Your task to perform on an android device: Open calendar and show me the fourth week of next month Image 0: 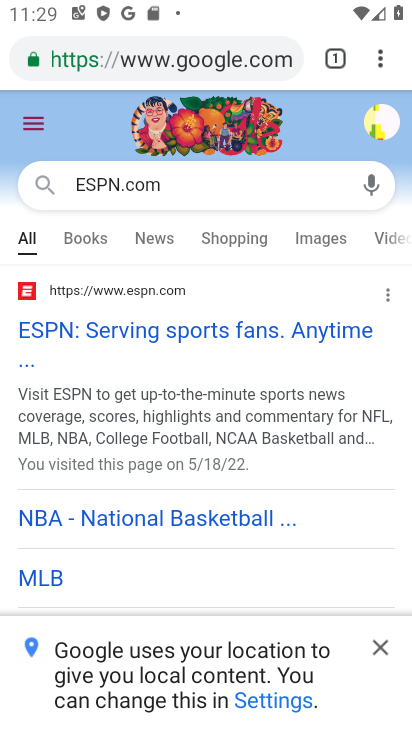
Step 0: press home button
Your task to perform on an android device: Open calendar and show me the fourth week of next month Image 1: 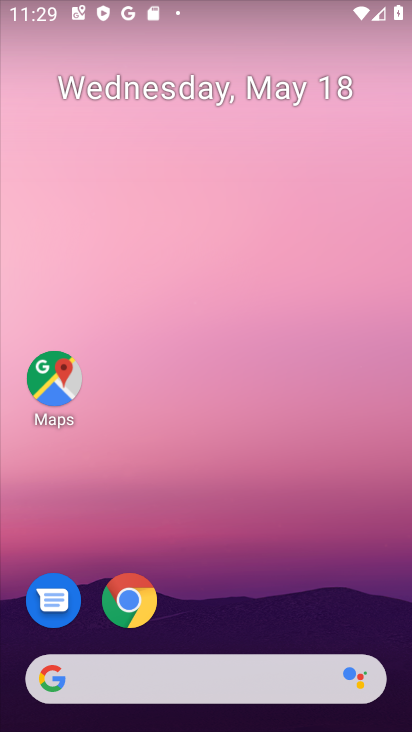
Step 1: drag from (189, 611) to (266, 123)
Your task to perform on an android device: Open calendar and show me the fourth week of next month Image 2: 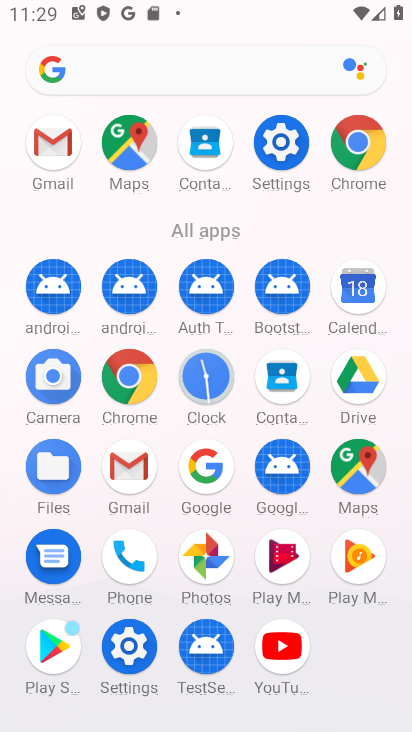
Step 2: click (352, 293)
Your task to perform on an android device: Open calendar and show me the fourth week of next month Image 3: 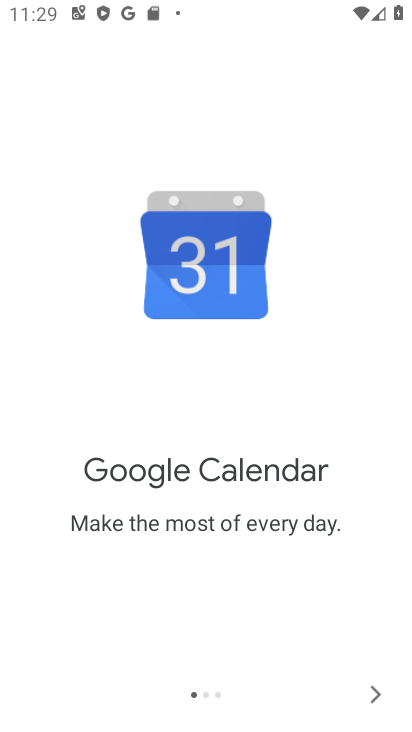
Step 3: click (368, 713)
Your task to perform on an android device: Open calendar and show me the fourth week of next month Image 4: 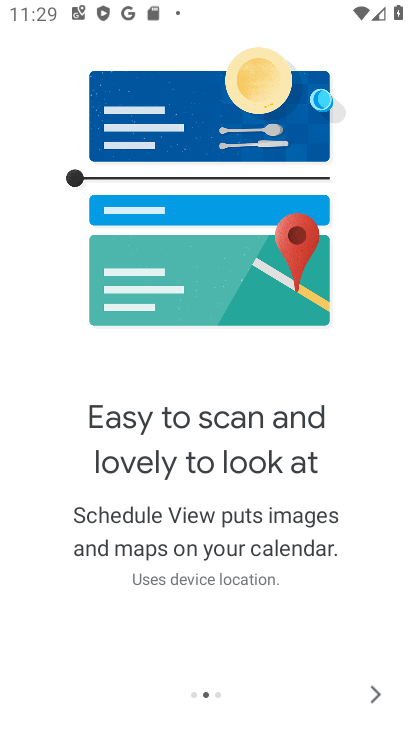
Step 4: click (373, 694)
Your task to perform on an android device: Open calendar and show me the fourth week of next month Image 5: 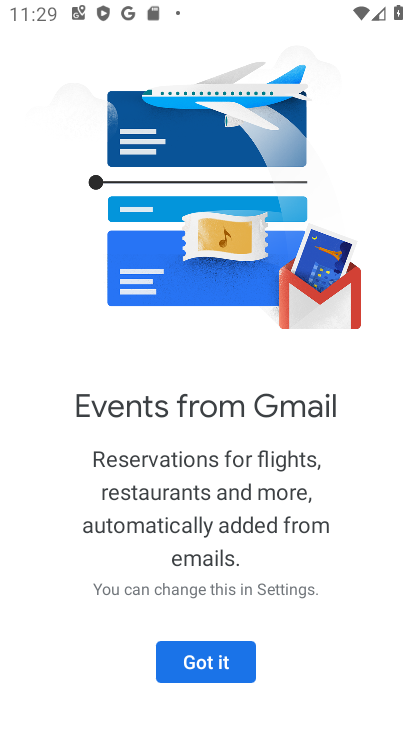
Step 5: click (204, 660)
Your task to perform on an android device: Open calendar and show me the fourth week of next month Image 6: 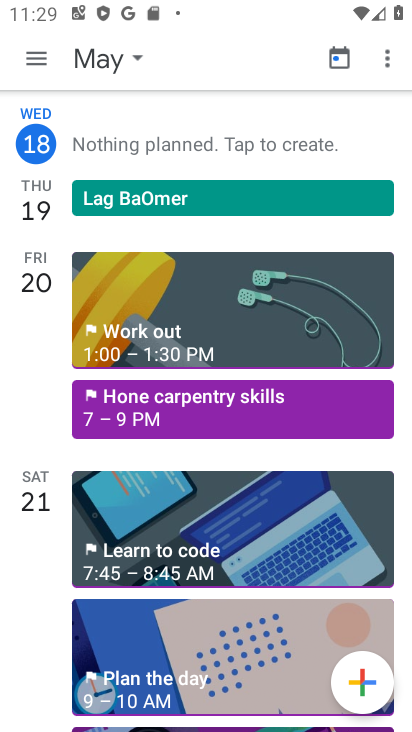
Step 6: click (40, 53)
Your task to perform on an android device: Open calendar and show me the fourth week of next month Image 7: 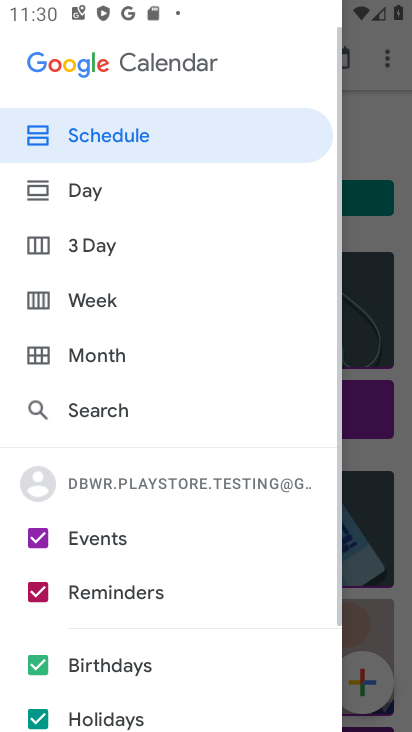
Step 7: click (115, 366)
Your task to perform on an android device: Open calendar and show me the fourth week of next month Image 8: 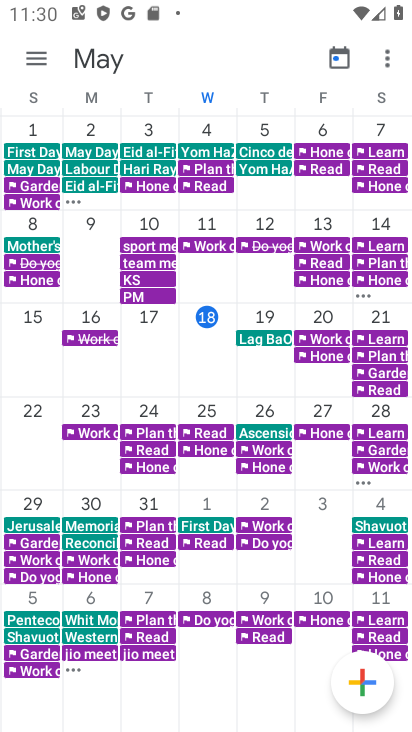
Step 8: drag from (330, 297) to (7, 243)
Your task to perform on an android device: Open calendar and show me the fourth week of next month Image 9: 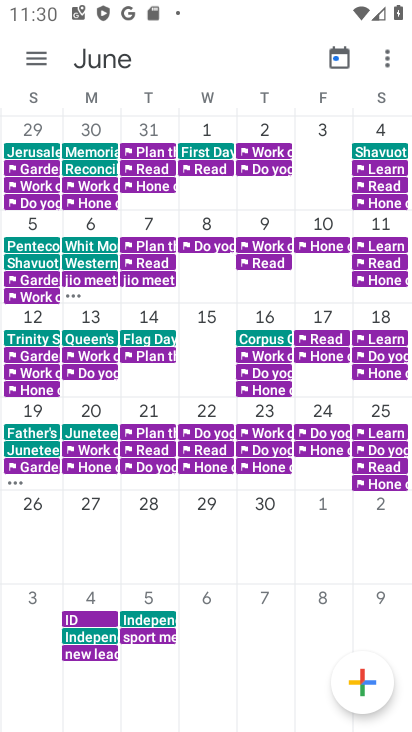
Step 9: click (214, 156)
Your task to perform on an android device: Open calendar and show me the fourth week of next month Image 10: 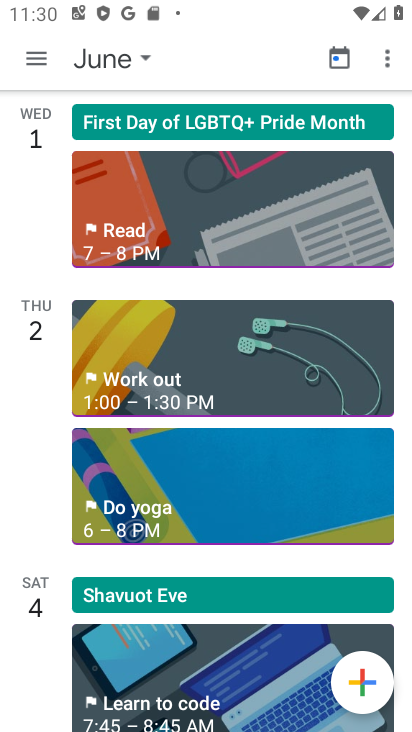
Step 10: click (33, 59)
Your task to perform on an android device: Open calendar and show me the fourth week of next month Image 11: 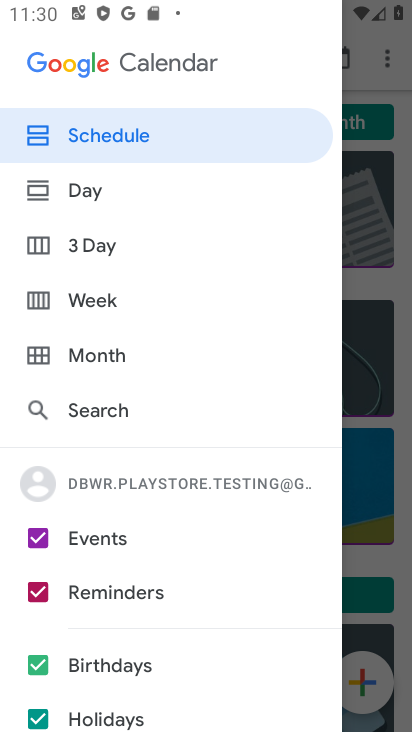
Step 11: click (109, 307)
Your task to perform on an android device: Open calendar and show me the fourth week of next month Image 12: 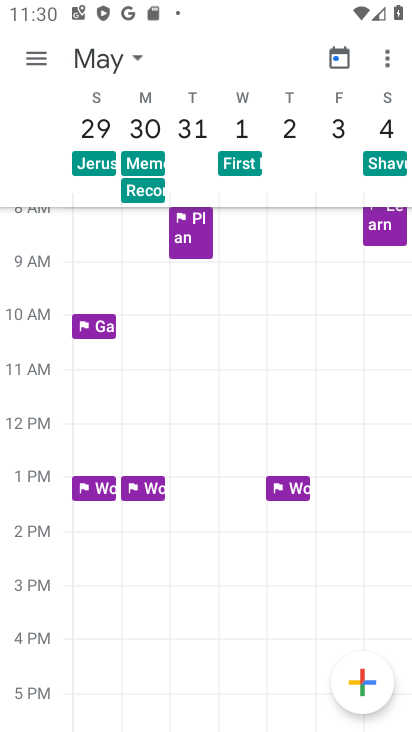
Step 12: task complete